Your task to perform on an android device: allow cookies in the chrome app Image 0: 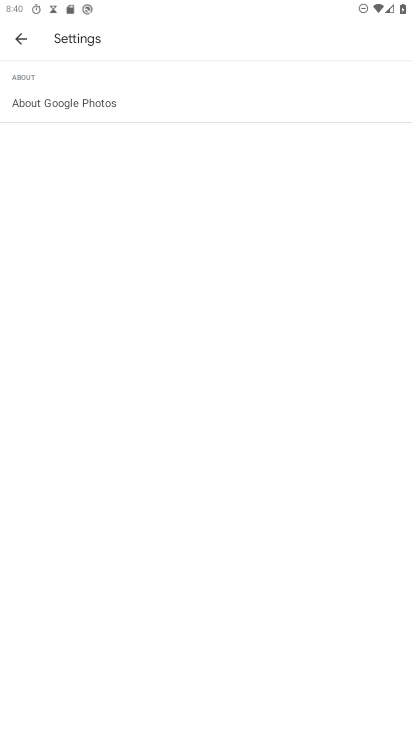
Step 0: press home button
Your task to perform on an android device: allow cookies in the chrome app Image 1: 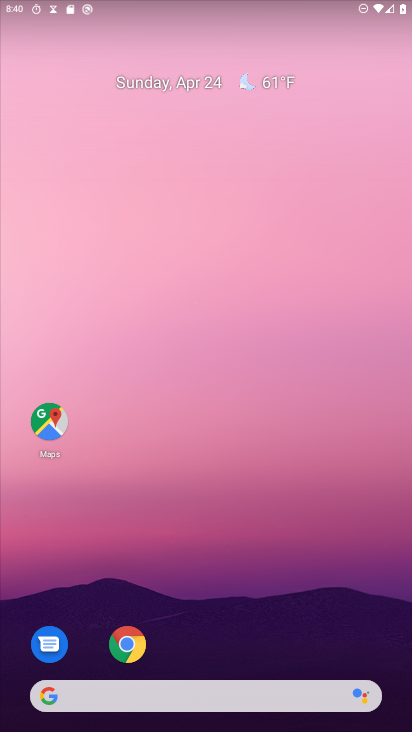
Step 1: click (119, 650)
Your task to perform on an android device: allow cookies in the chrome app Image 2: 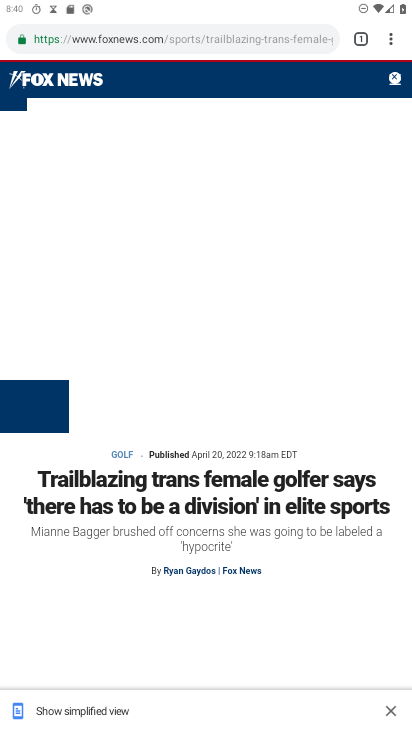
Step 2: drag from (390, 40) to (269, 507)
Your task to perform on an android device: allow cookies in the chrome app Image 3: 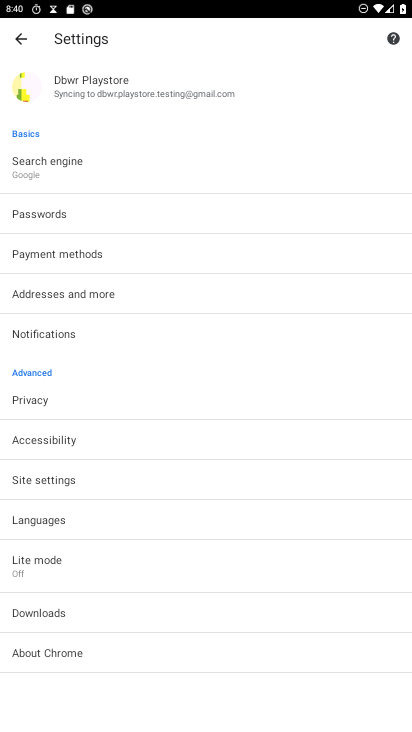
Step 3: click (40, 476)
Your task to perform on an android device: allow cookies in the chrome app Image 4: 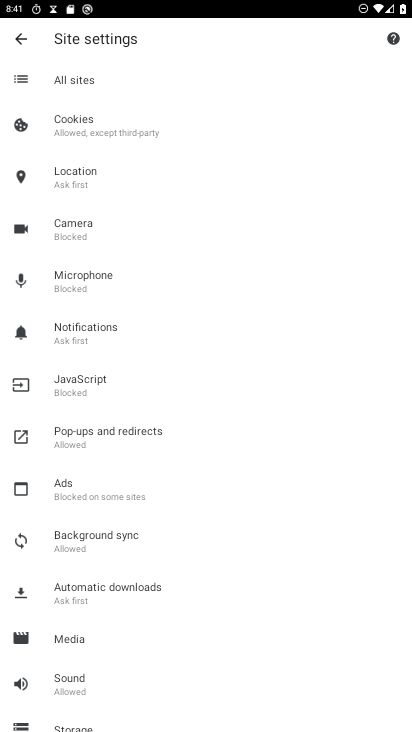
Step 4: click (79, 124)
Your task to perform on an android device: allow cookies in the chrome app Image 5: 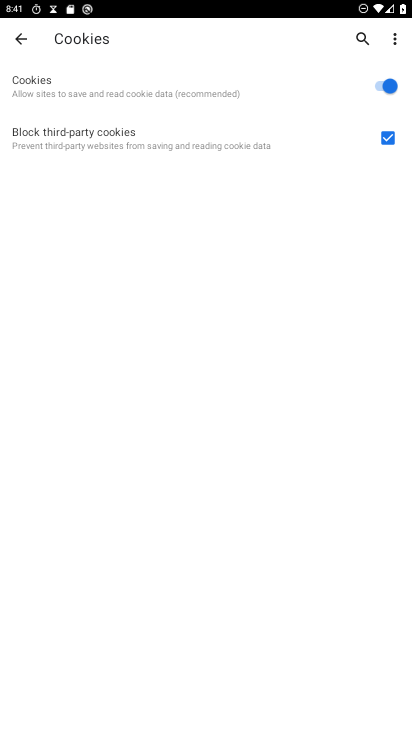
Step 5: task complete